Your task to perform on an android device: see sites visited before in the chrome app Image 0: 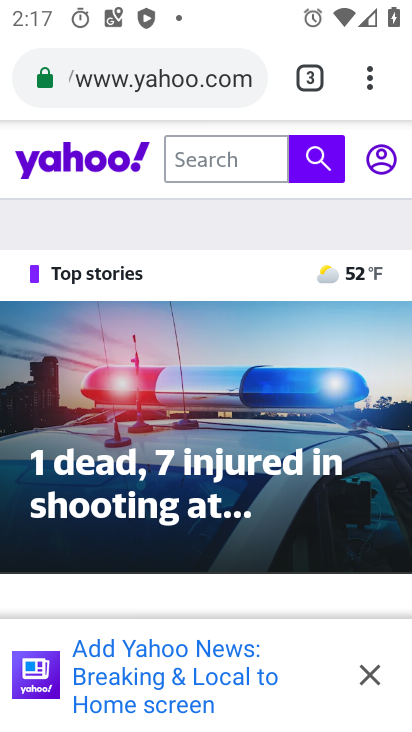
Step 0: click (370, 78)
Your task to perform on an android device: see sites visited before in the chrome app Image 1: 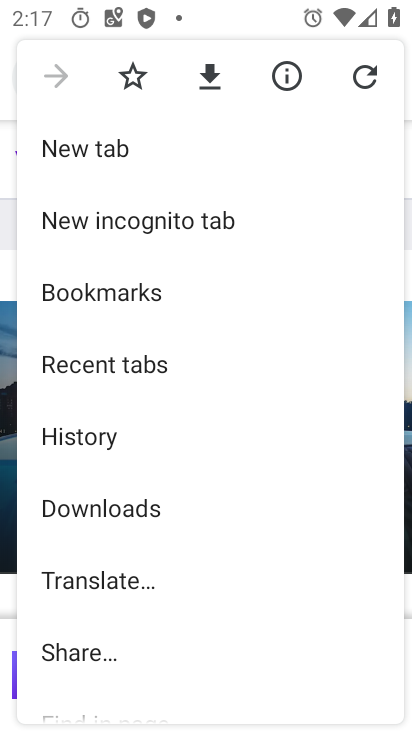
Step 1: click (88, 441)
Your task to perform on an android device: see sites visited before in the chrome app Image 2: 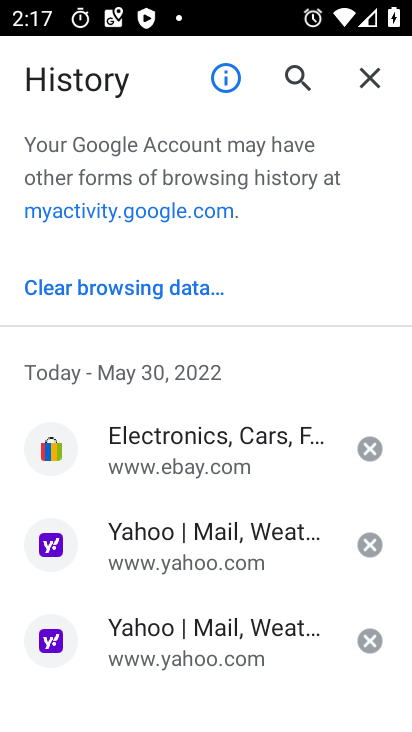
Step 2: task complete